Your task to perform on an android device: check android version Image 0: 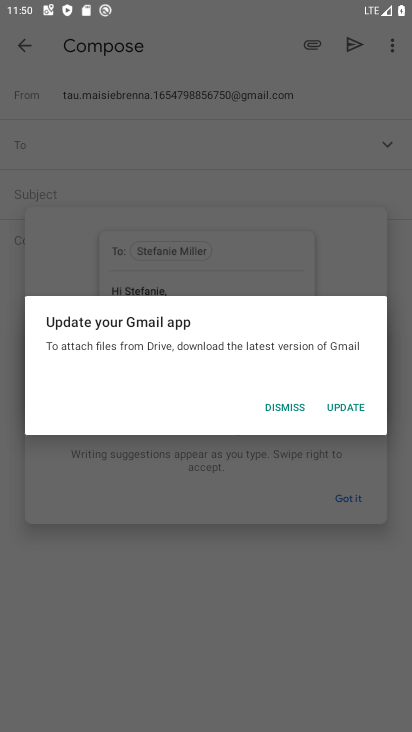
Step 0: press home button
Your task to perform on an android device: check android version Image 1: 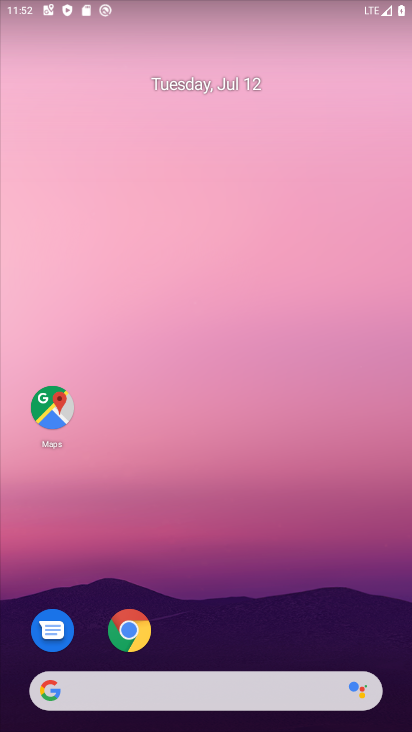
Step 1: drag from (294, 488) to (14, 214)
Your task to perform on an android device: check android version Image 2: 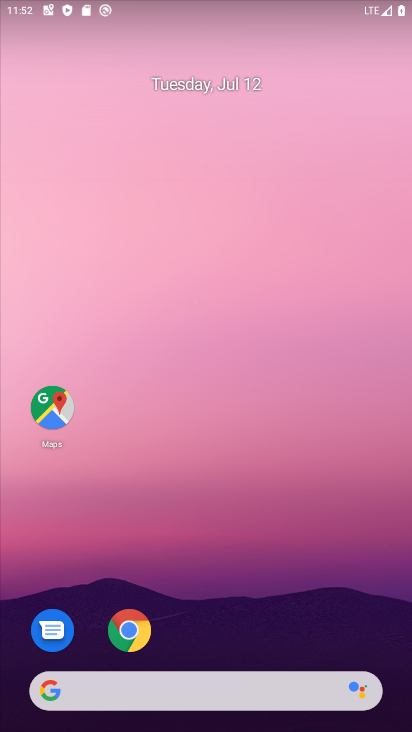
Step 2: drag from (345, 650) to (275, 6)
Your task to perform on an android device: check android version Image 3: 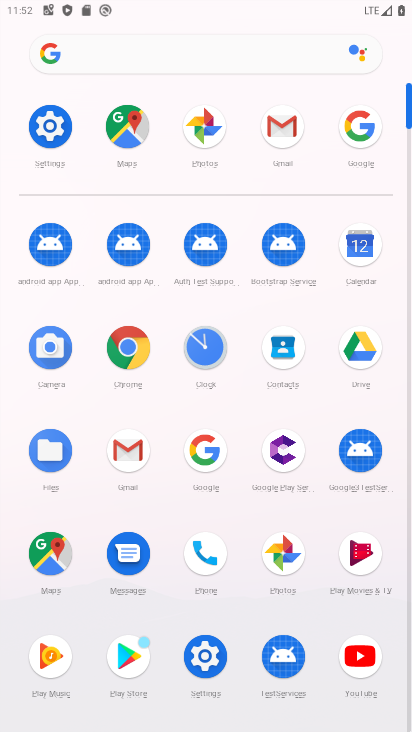
Step 3: click (214, 653)
Your task to perform on an android device: check android version Image 4: 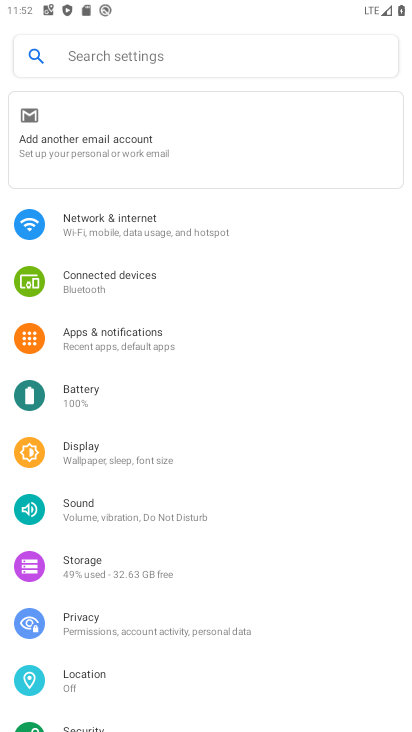
Step 4: drag from (187, 698) to (149, 42)
Your task to perform on an android device: check android version Image 5: 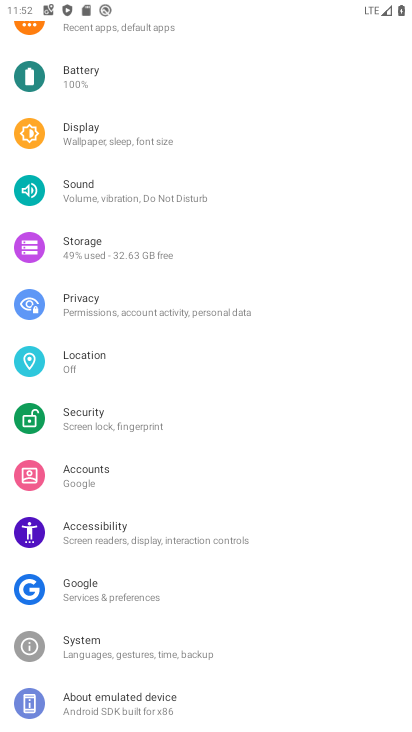
Step 5: click (167, 693)
Your task to perform on an android device: check android version Image 6: 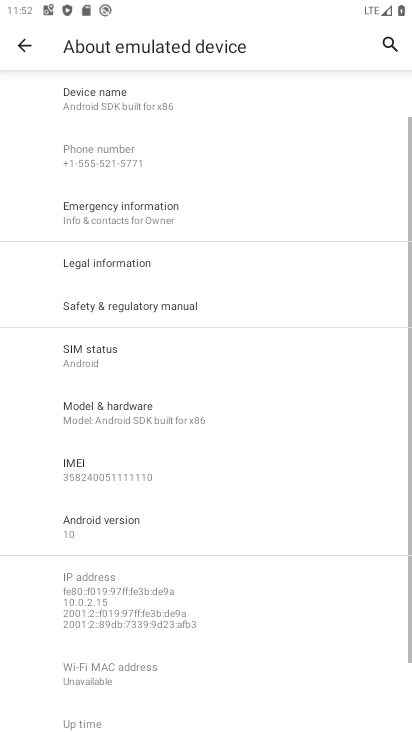
Step 6: click (108, 526)
Your task to perform on an android device: check android version Image 7: 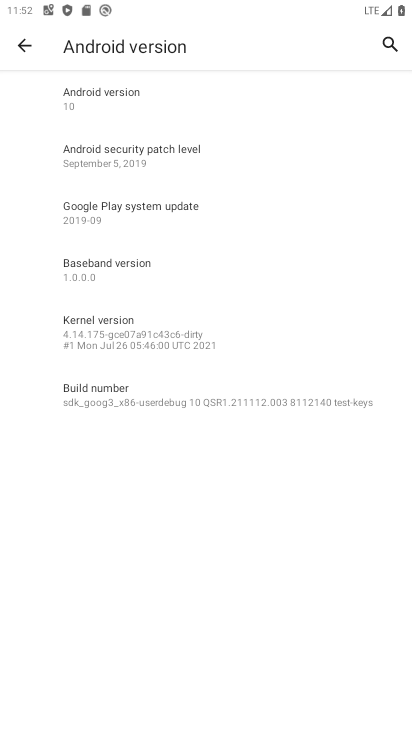
Step 7: task complete